Your task to perform on an android device: see sites visited before in the chrome app Image 0: 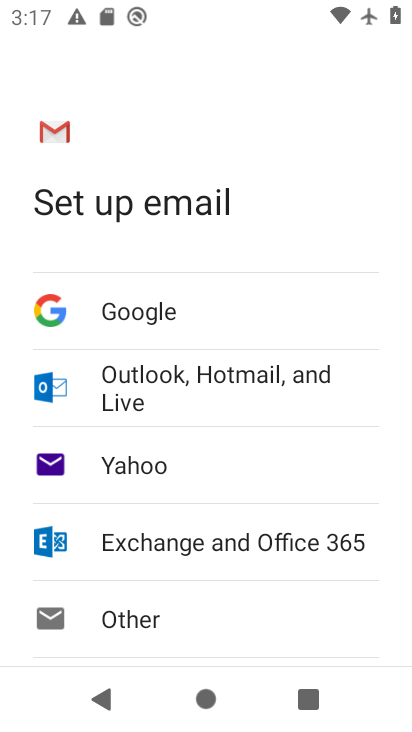
Step 0: press home button
Your task to perform on an android device: see sites visited before in the chrome app Image 1: 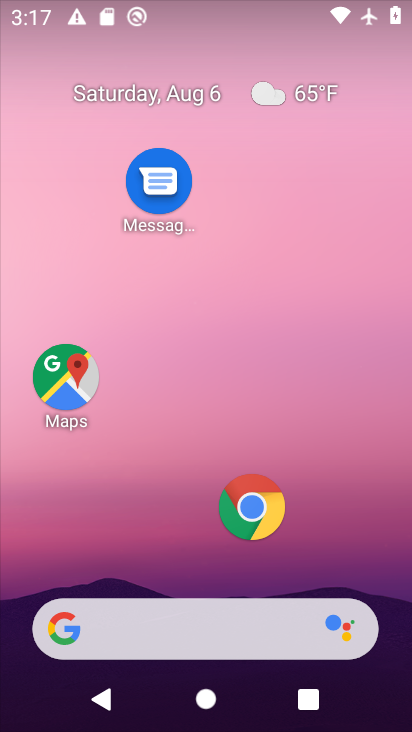
Step 1: click (263, 515)
Your task to perform on an android device: see sites visited before in the chrome app Image 2: 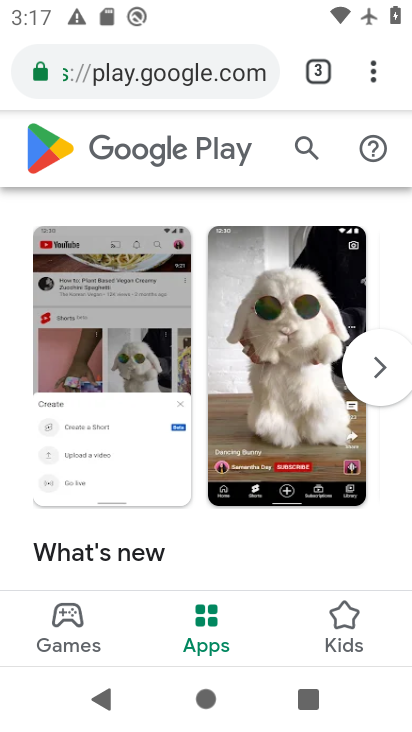
Step 2: click (375, 66)
Your task to perform on an android device: see sites visited before in the chrome app Image 3: 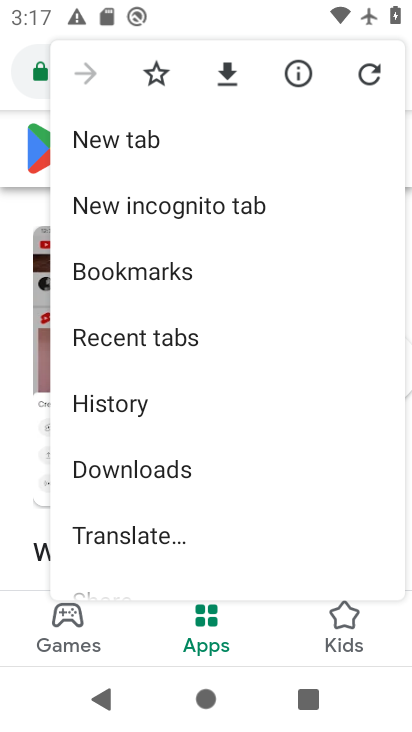
Step 3: click (117, 404)
Your task to perform on an android device: see sites visited before in the chrome app Image 4: 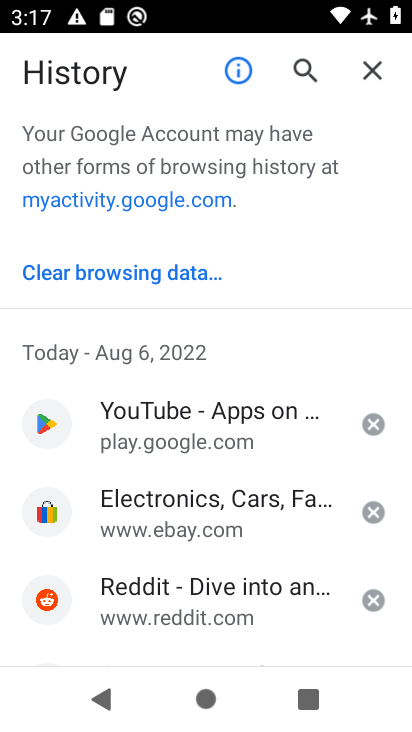
Step 4: task complete